Your task to perform on an android device: Go to sound settings Image 0: 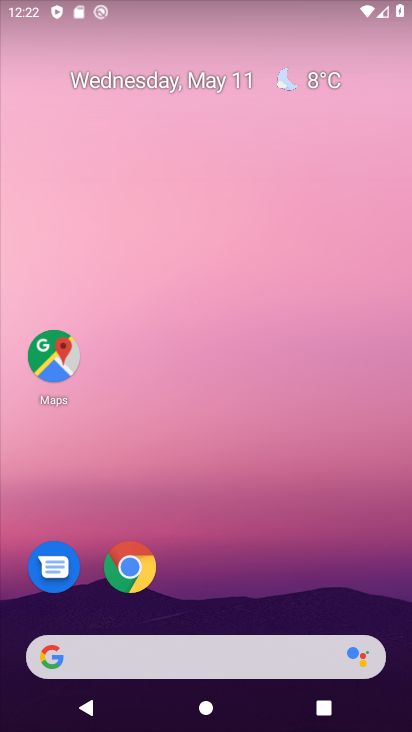
Step 0: drag from (235, 435) to (295, 103)
Your task to perform on an android device: Go to sound settings Image 1: 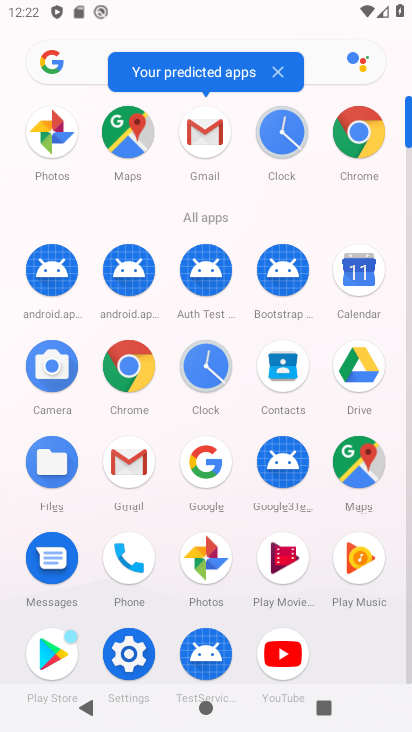
Step 1: click (130, 653)
Your task to perform on an android device: Go to sound settings Image 2: 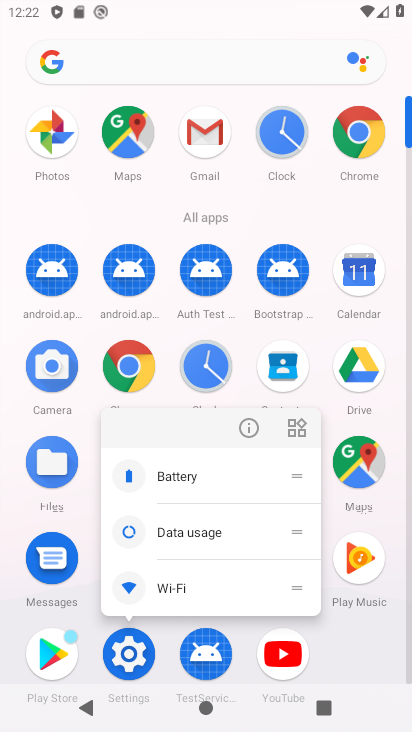
Step 2: click (129, 643)
Your task to perform on an android device: Go to sound settings Image 3: 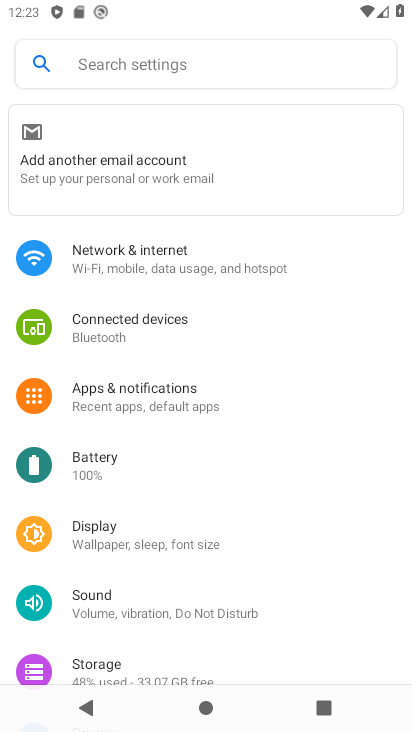
Step 3: click (142, 606)
Your task to perform on an android device: Go to sound settings Image 4: 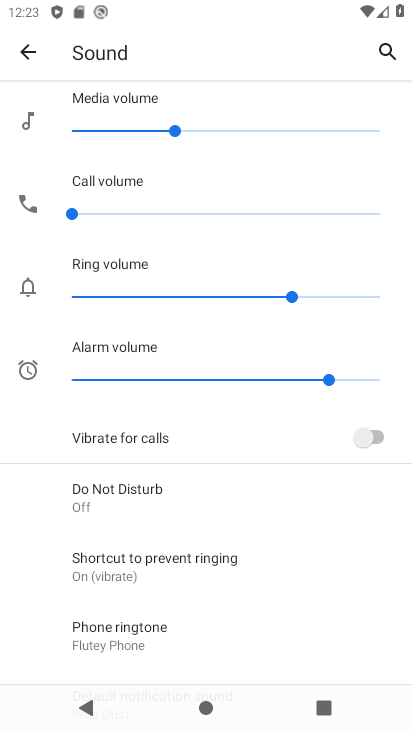
Step 4: task complete